Your task to perform on an android device: see tabs open on other devices in the chrome app Image 0: 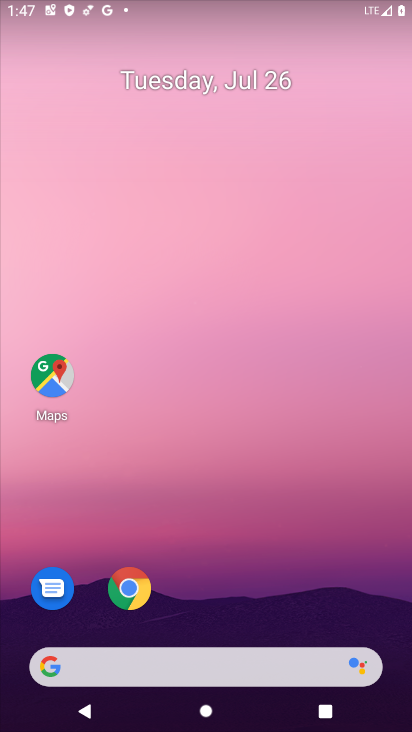
Step 0: drag from (225, 627) to (160, 43)
Your task to perform on an android device: see tabs open on other devices in the chrome app Image 1: 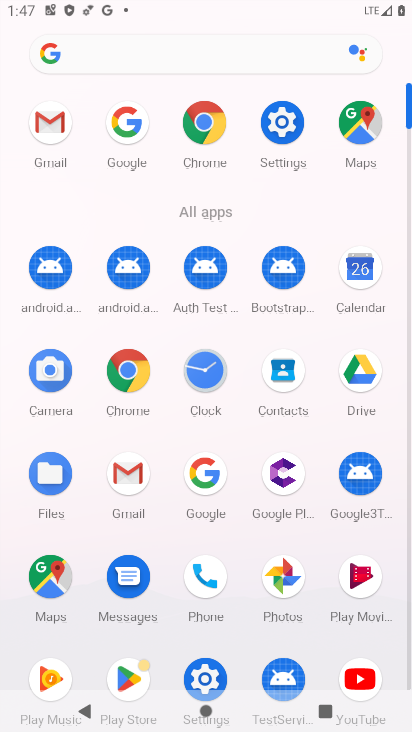
Step 1: click (214, 137)
Your task to perform on an android device: see tabs open on other devices in the chrome app Image 2: 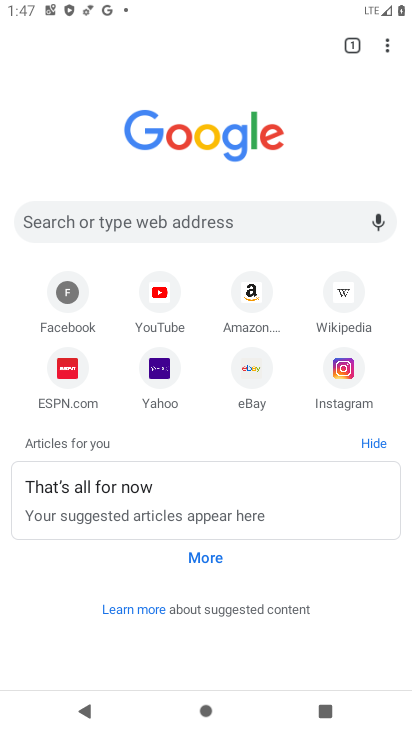
Step 2: click (356, 43)
Your task to perform on an android device: see tabs open on other devices in the chrome app Image 3: 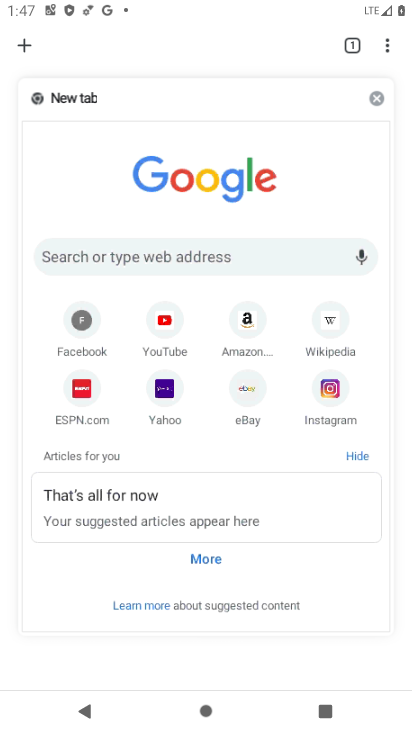
Step 3: click (20, 43)
Your task to perform on an android device: see tabs open on other devices in the chrome app Image 4: 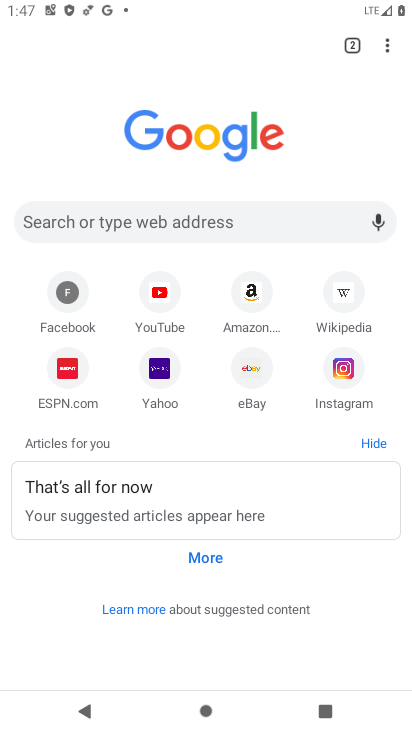
Step 4: task complete